Your task to perform on an android device: How much does a 2 bedroom apartment rent for in San Francisco? Image 0: 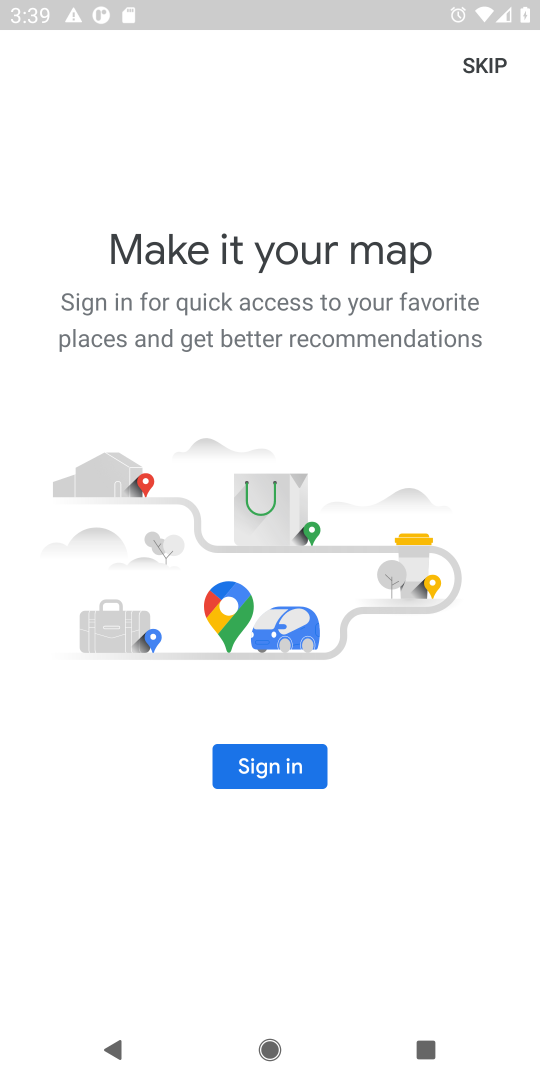
Step 0: click (252, 772)
Your task to perform on an android device: How much does a 2 bedroom apartment rent for in San Francisco? Image 1: 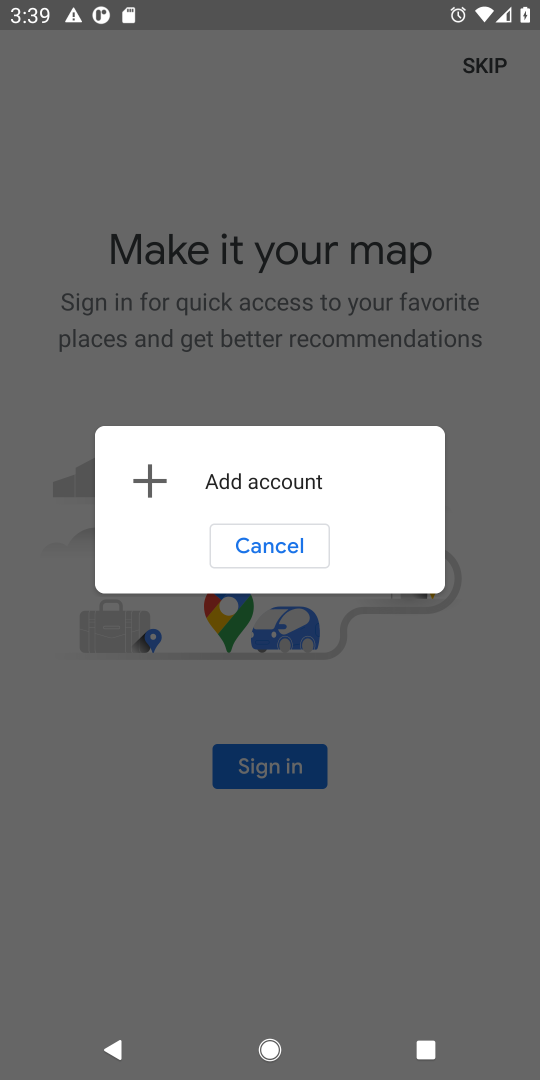
Step 1: task complete